Your task to perform on an android device: refresh tabs in the chrome app Image 0: 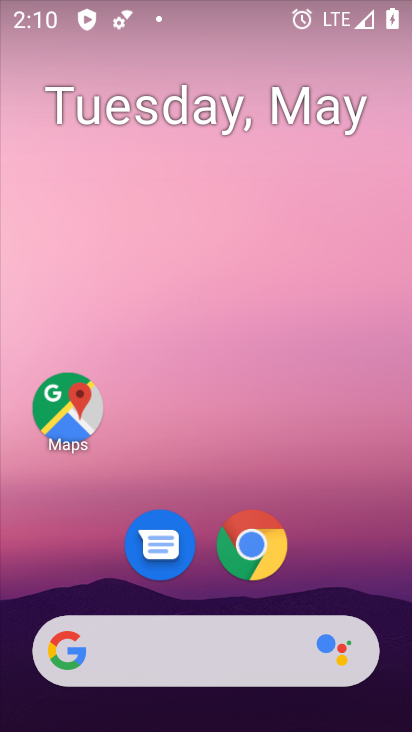
Step 0: drag from (334, 495) to (210, 10)
Your task to perform on an android device: refresh tabs in the chrome app Image 1: 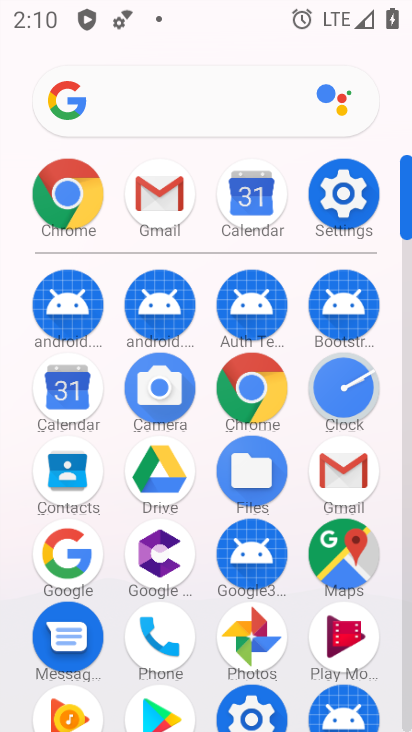
Step 1: drag from (14, 577) to (26, 226)
Your task to perform on an android device: refresh tabs in the chrome app Image 2: 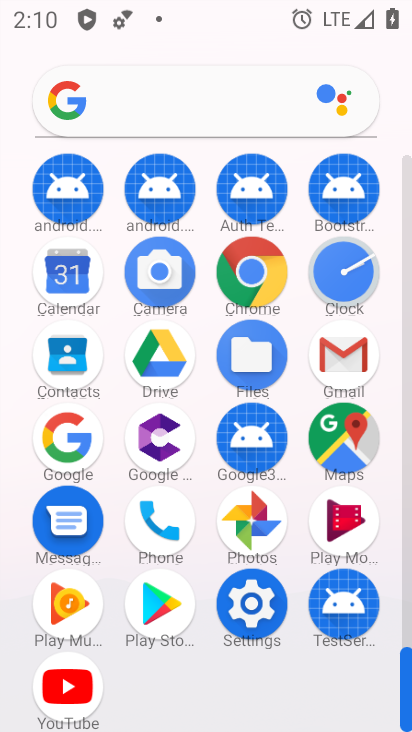
Step 2: click (255, 268)
Your task to perform on an android device: refresh tabs in the chrome app Image 3: 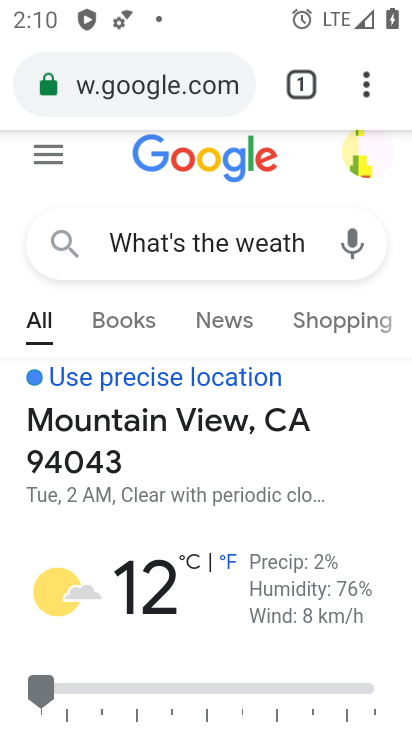
Step 3: click (364, 75)
Your task to perform on an android device: refresh tabs in the chrome app Image 4: 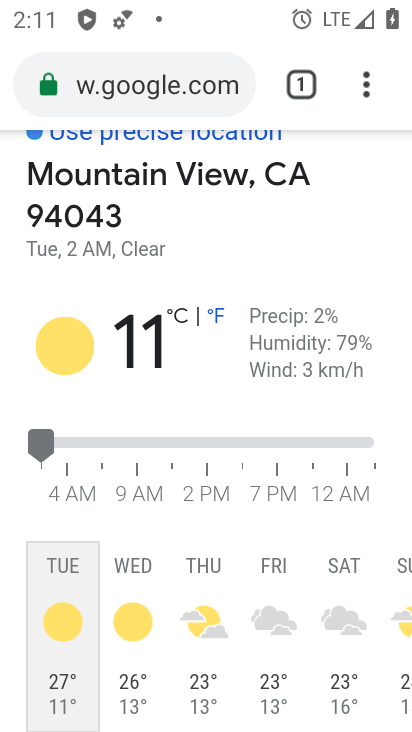
Step 4: click (359, 90)
Your task to perform on an android device: refresh tabs in the chrome app Image 5: 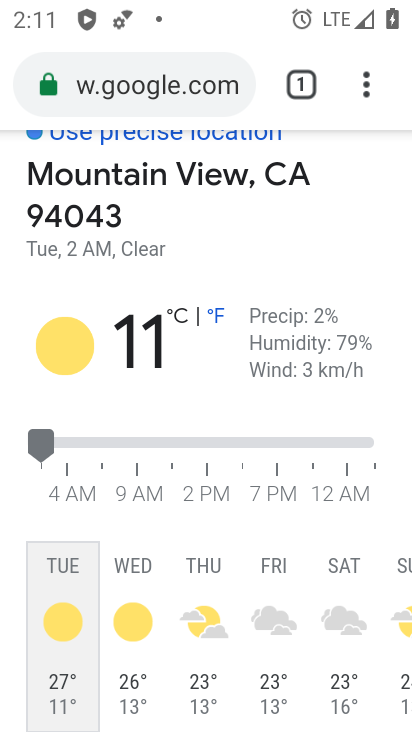
Step 5: task complete